Your task to perform on an android device: turn pop-ups off in chrome Image 0: 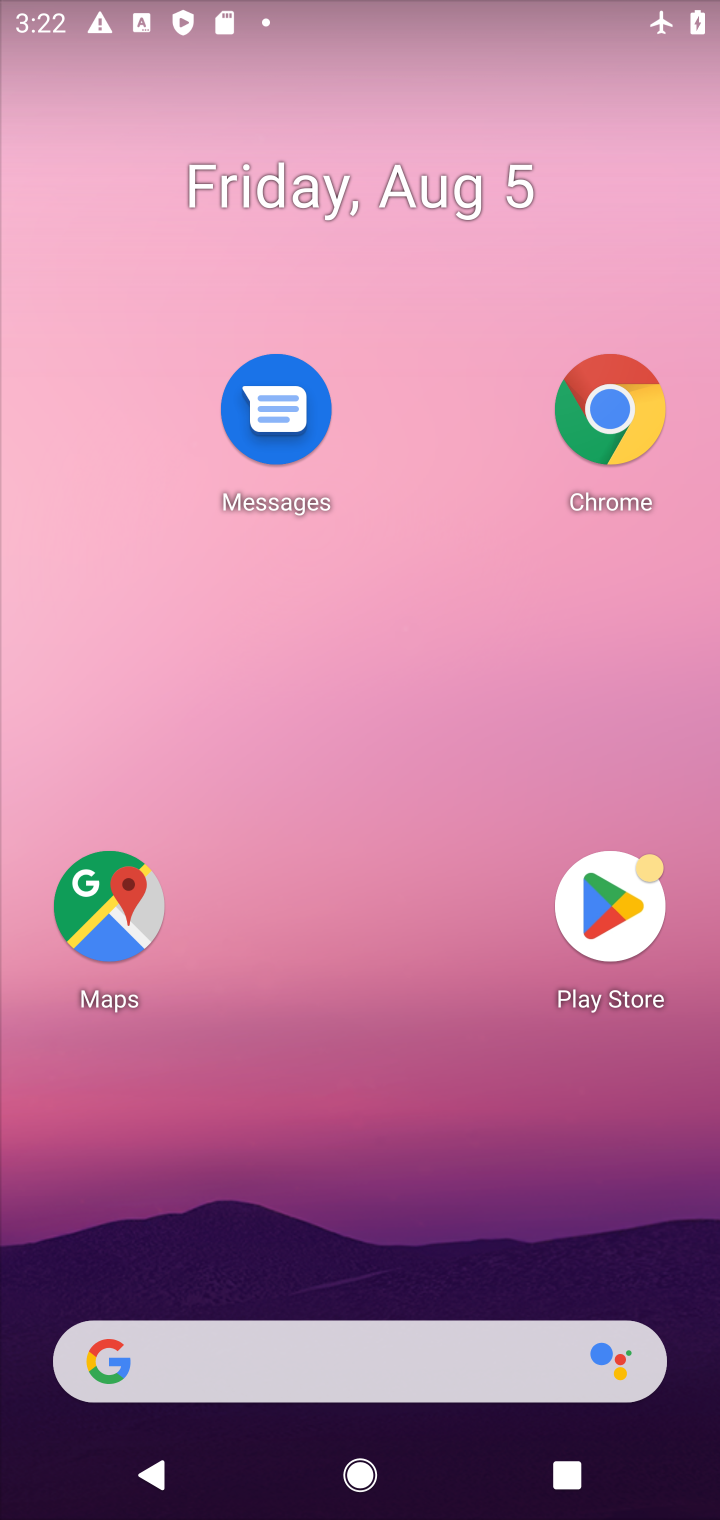
Step 0: click (591, 441)
Your task to perform on an android device: turn pop-ups off in chrome Image 1: 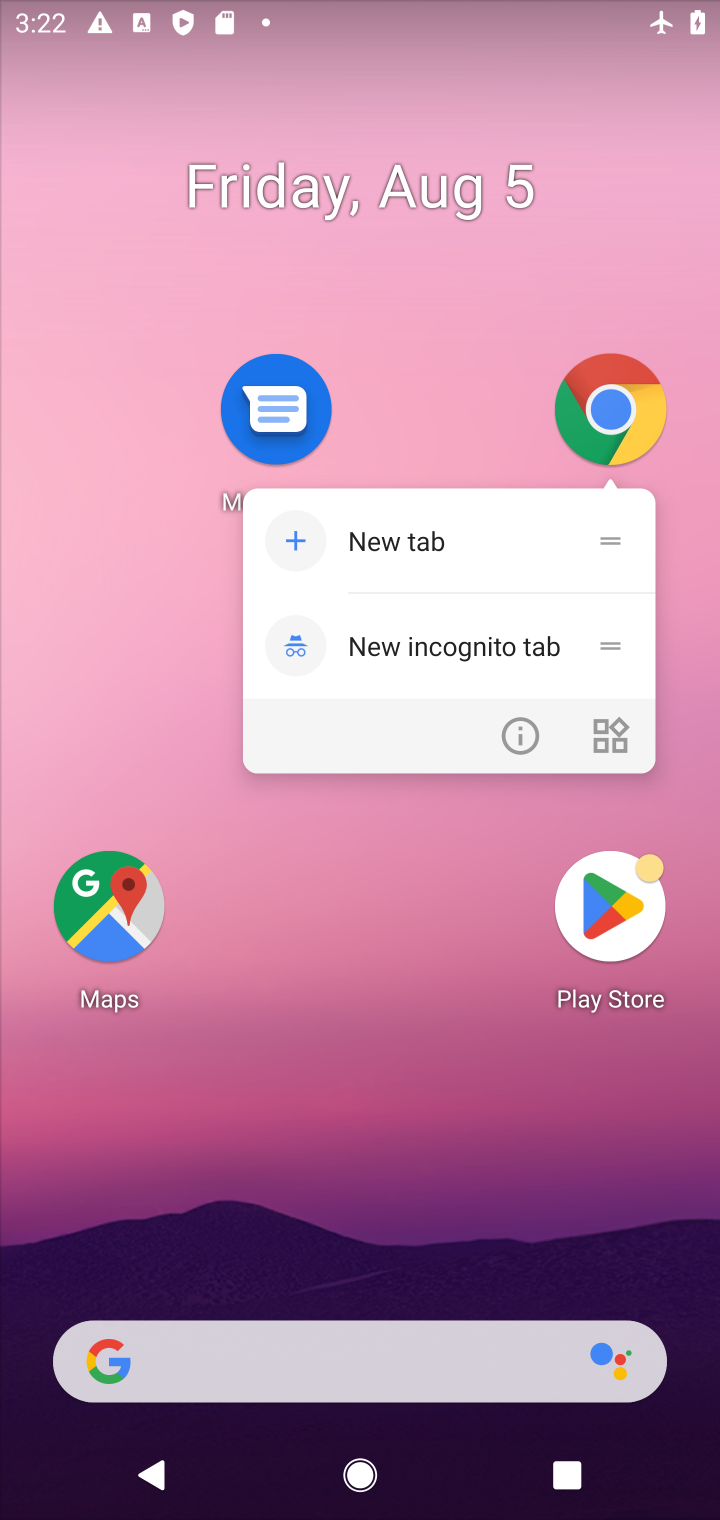
Step 1: click (508, 746)
Your task to perform on an android device: turn pop-ups off in chrome Image 2: 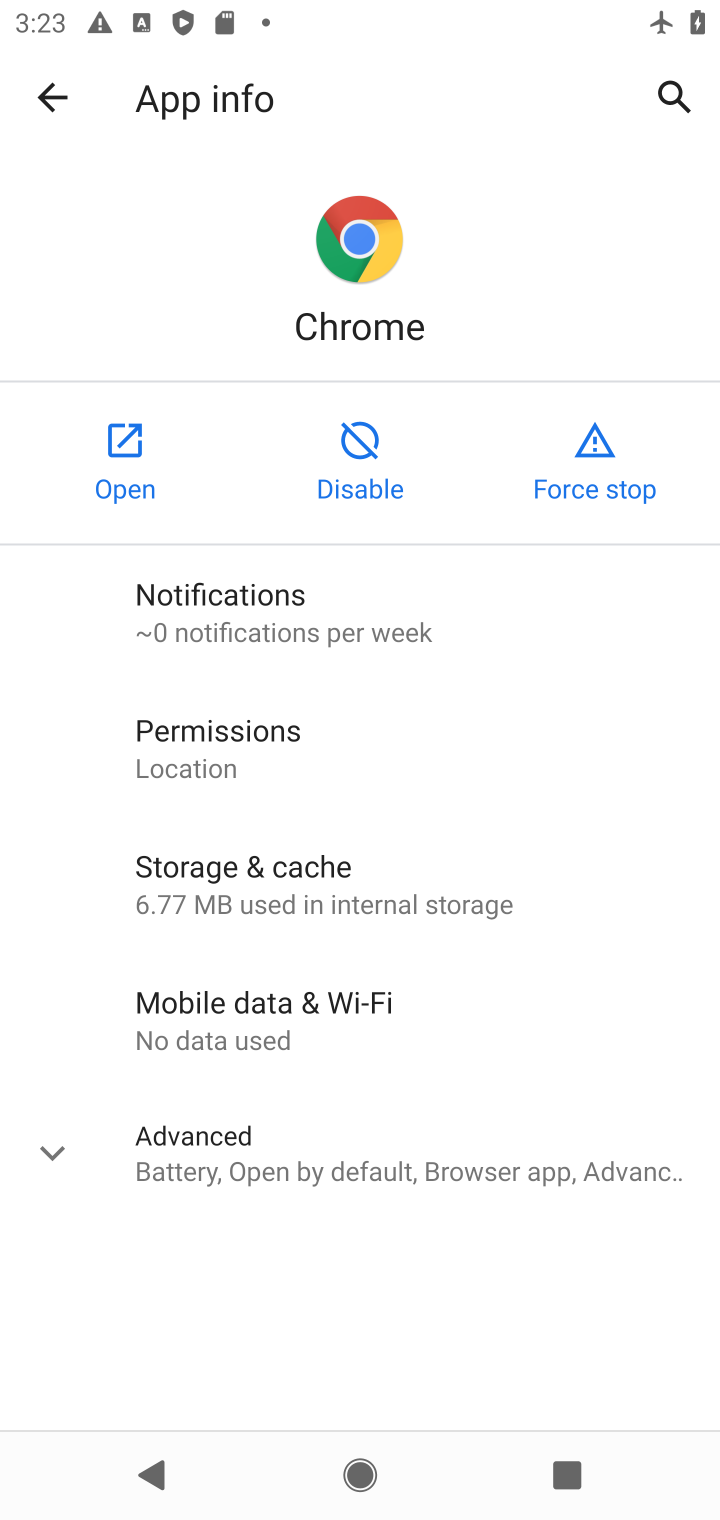
Step 2: click (197, 1172)
Your task to perform on an android device: turn pop-ups off in chrome Image 3: 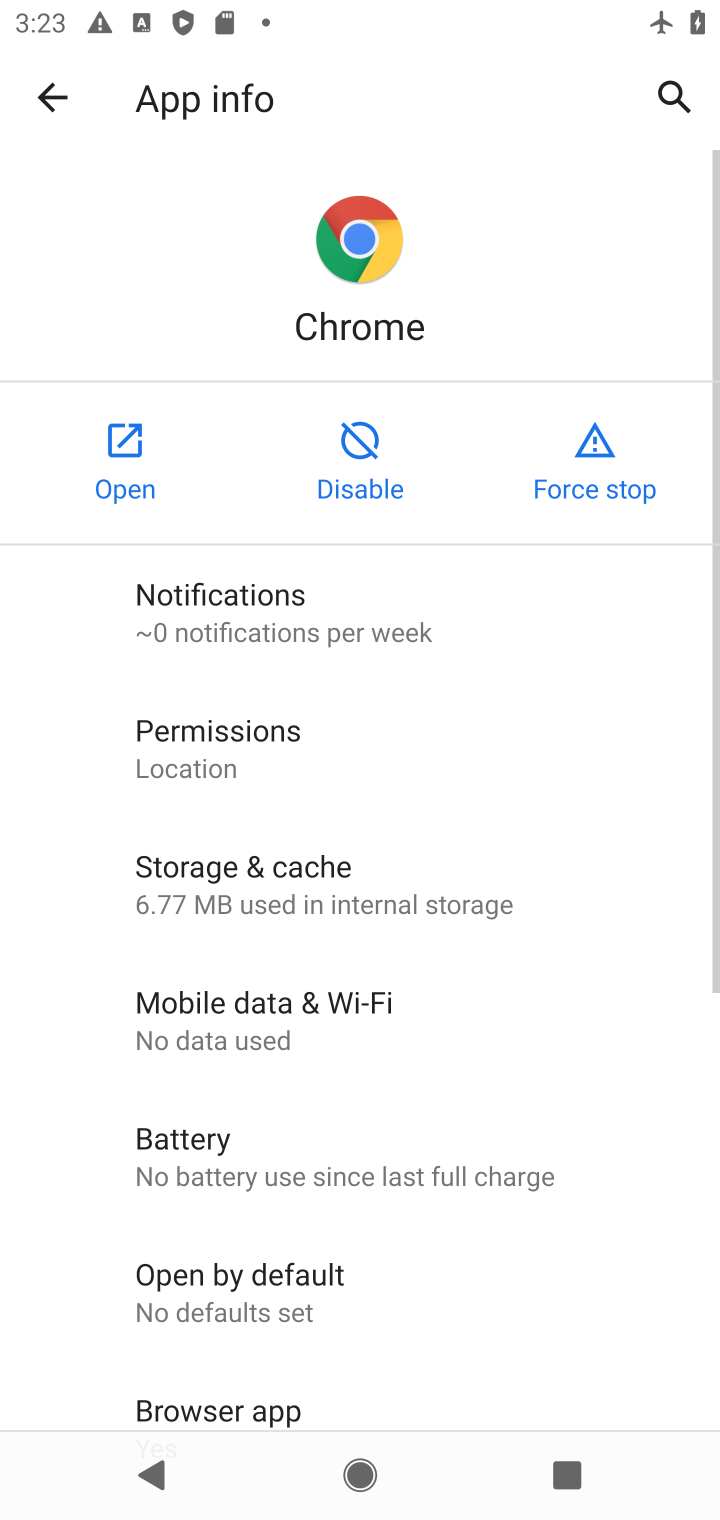
Step 3: drag from (386, 1353) to (389, 528)
Your task to perform on an android device: turn pop-ups off in chrome Image 4: 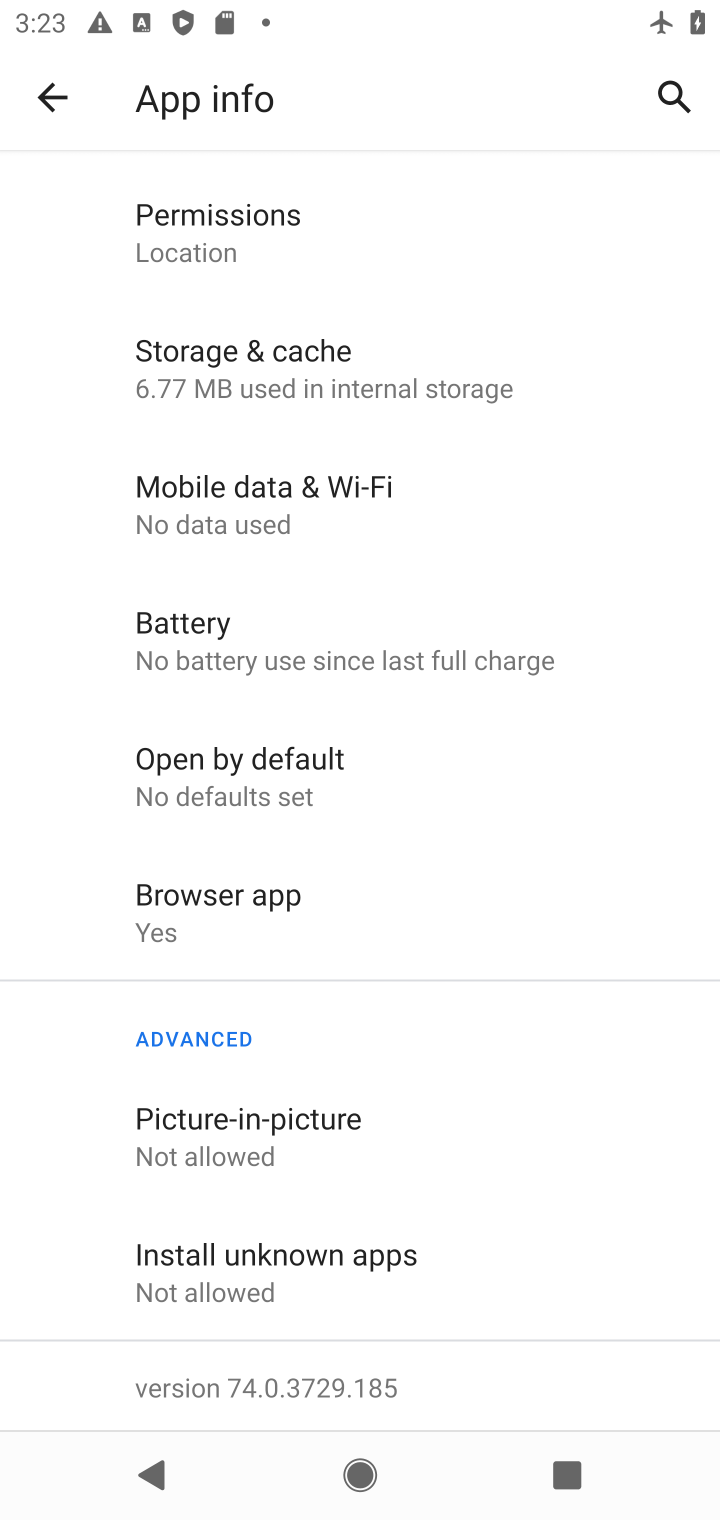
Step 4: click (379, 1145)
Your task to perform on an android device: turn pop-ups off in chrome Image 5: 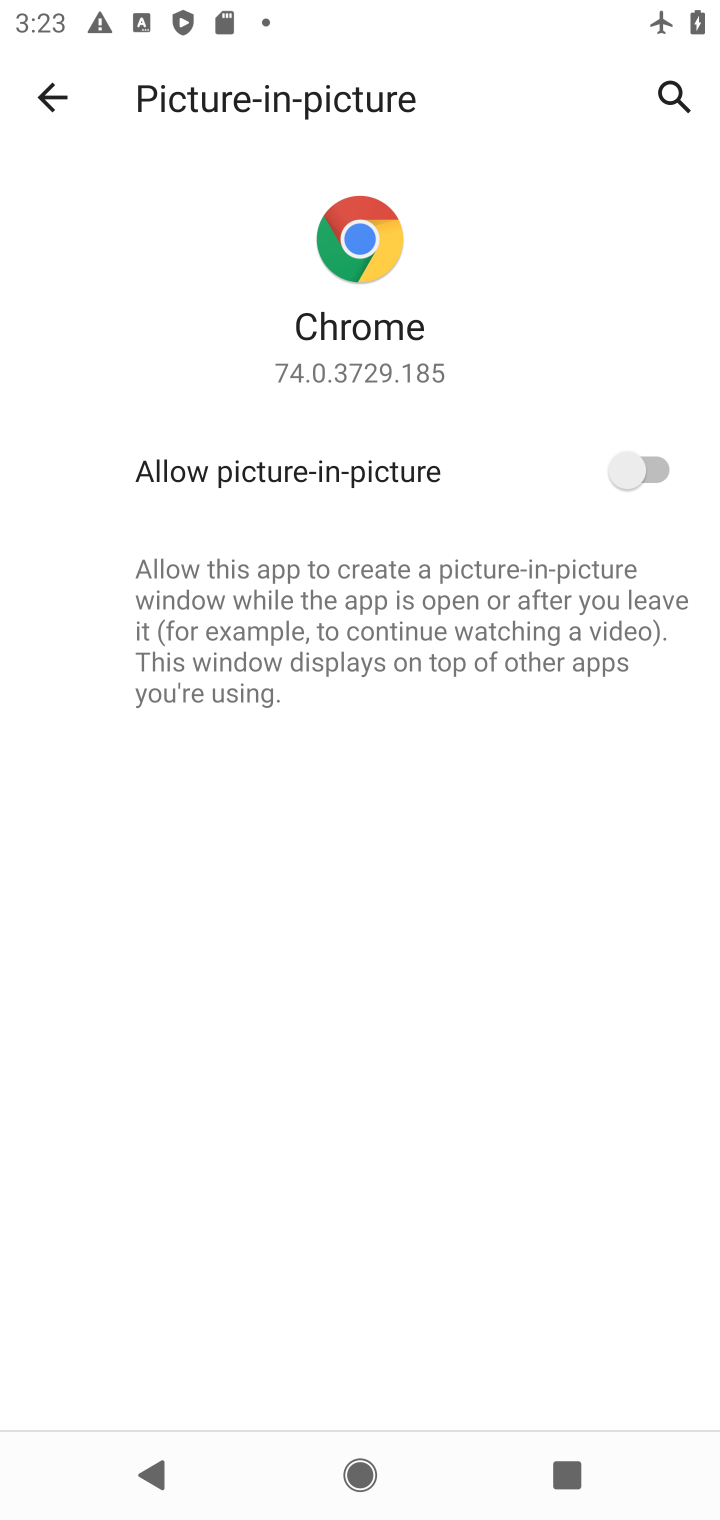
Step 5: task complete